Your task to perform on an android device: Open my contact list Image 0: 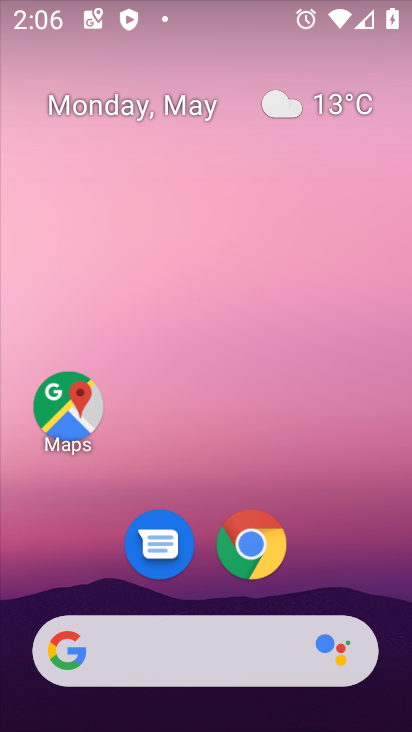
Step 0: drag from (387, 615) to (299, 38)
Your task to perform on an android device: Open my contact list Image 1: 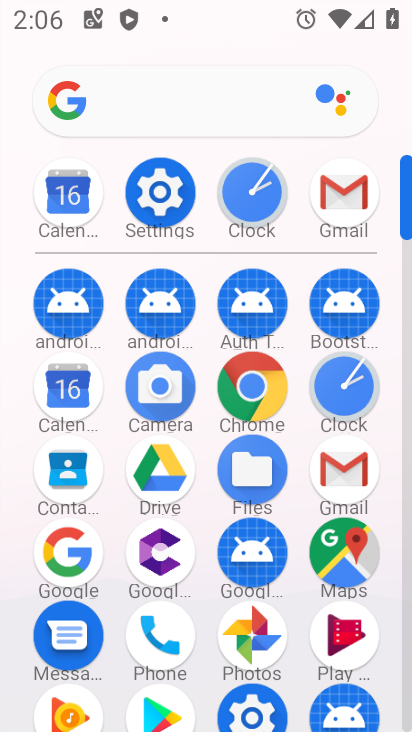
Step 1: click (67, 472)
Your task to perform on an android device: Open my contact list Image 2: 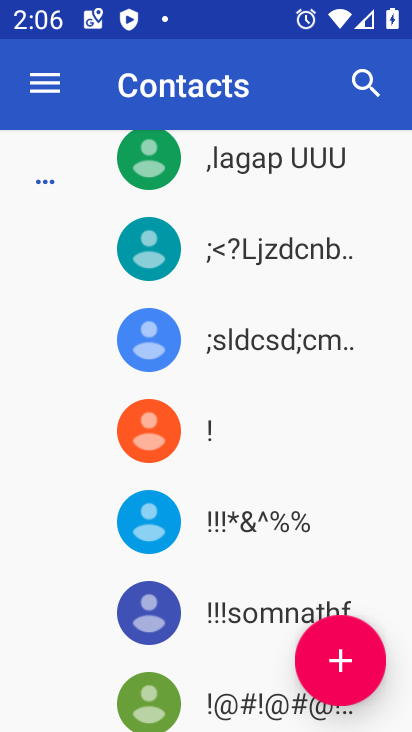
Step 2: task complete